Your task to perform on an android device: turn off notifications settings in the gmail app Image 0: 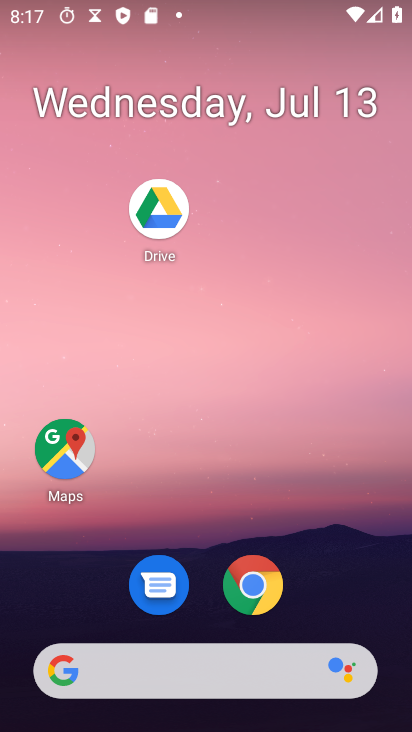
Step 0: drag from (137, 674) to (211, 160)
Your task to perform on an android device: turn off notifications settings in the gmail app Image 1: 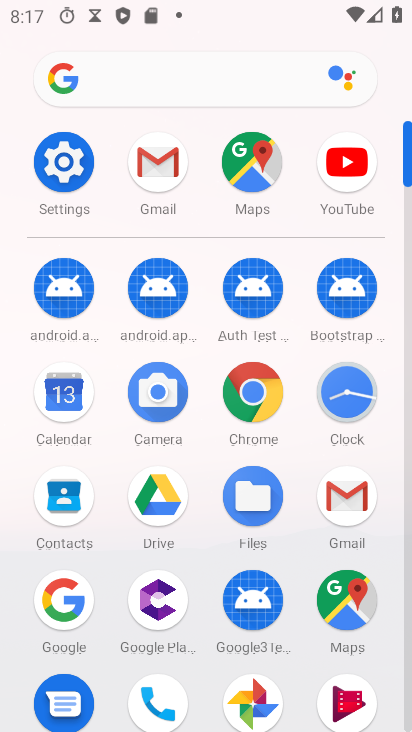
Step 1: click (152, 174)
Your task to perform on an android device: turn off notifications settings in the gmail app Image 2: 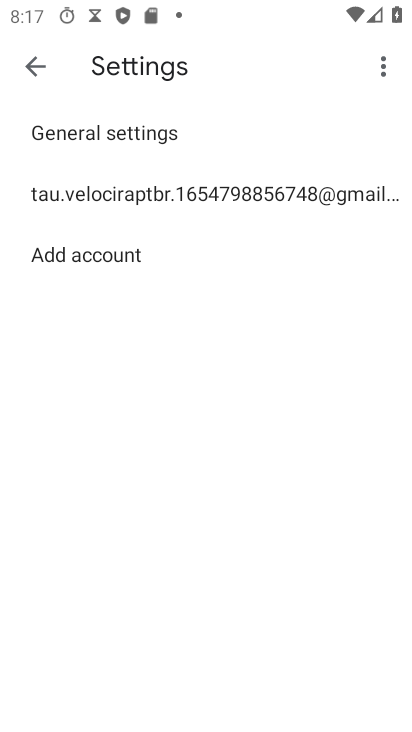
Step 2: click (169, 188)
Your task to perform on an android device: turn off notifications settings in the gmail app Image 3: 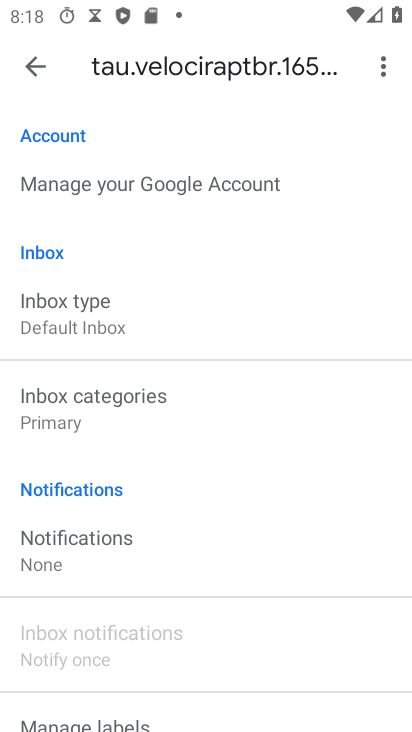
Step 3: press home button
Your task to perform on an android device: turn off notifications settings in the gmail app Image 4: 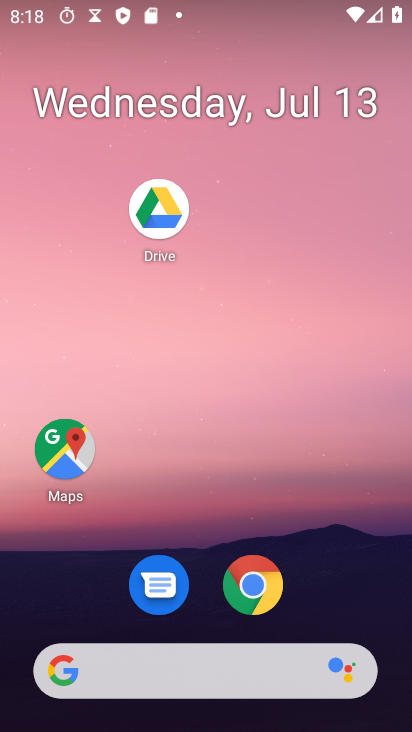
Step 4: drag from (202, 671) to (322, 100)
Your task to perform on an android device: turn off notifications settings in the gmail app Image 5: 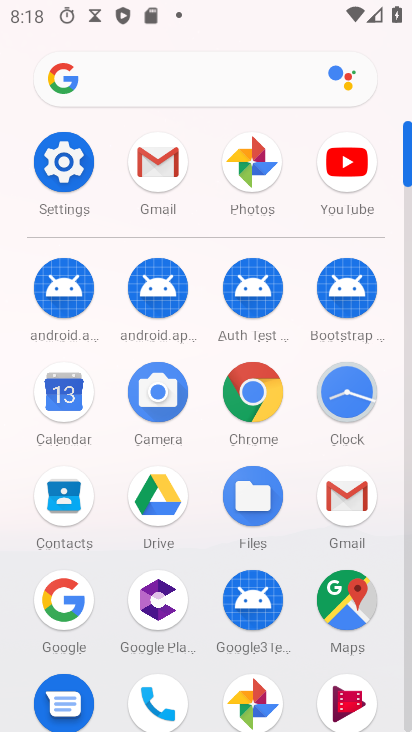
Step 5: click (165, 160)
Your task to perform on an android device: turn off notifications settings in the gmail app Image 6: 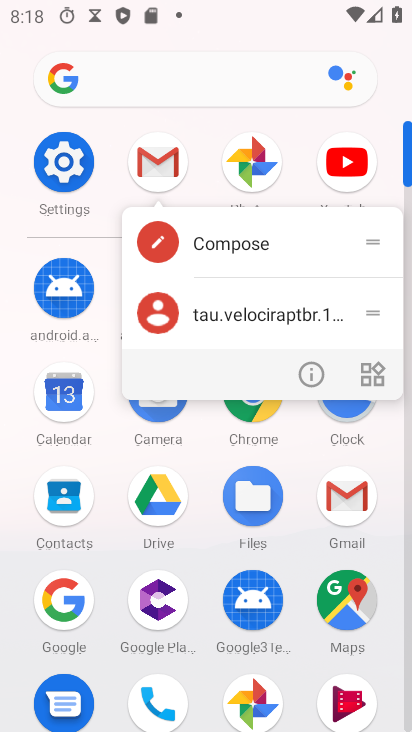
Step 6: click (165, 161)
Your task to perform on an android device: turn off notifications settings in the gmail app Image 7: 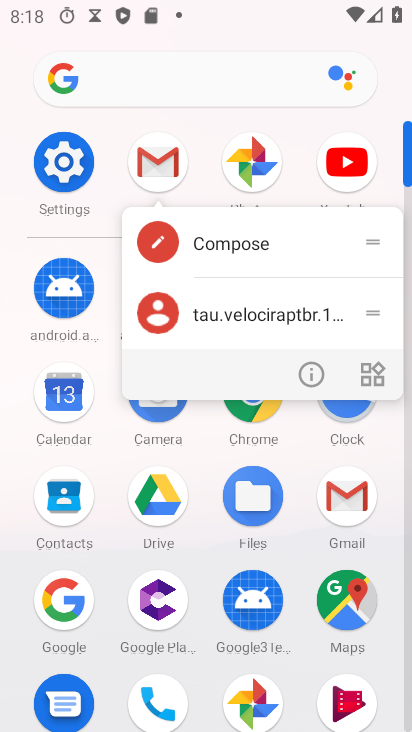
Step 7: click (159, 163)
Your task to perform on an android device: turn off notifications settings in the gmail app Image 8: 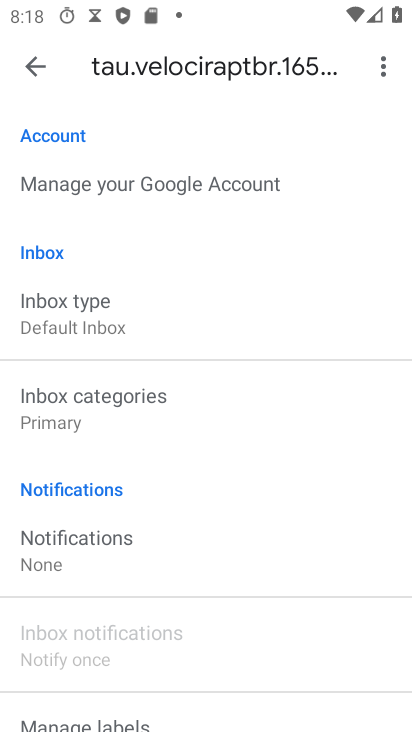
Step 8: click (68, 555)
Your task to perform on an android device: turn off notifications settings in the gmail app Image 9: 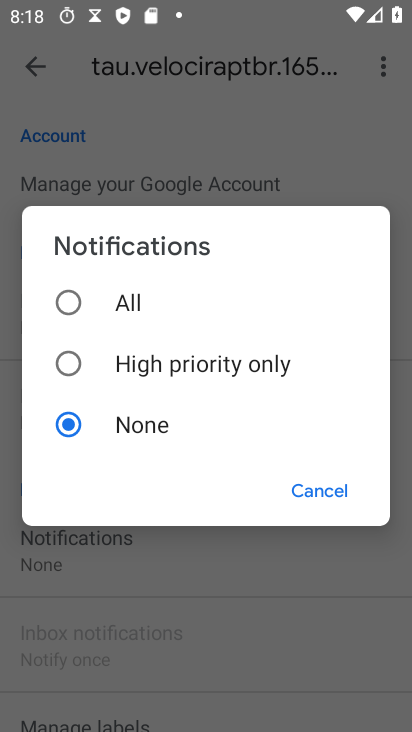
Step 9: task complete